Your task to perform on an android device: change the clock display to analog Image 0: 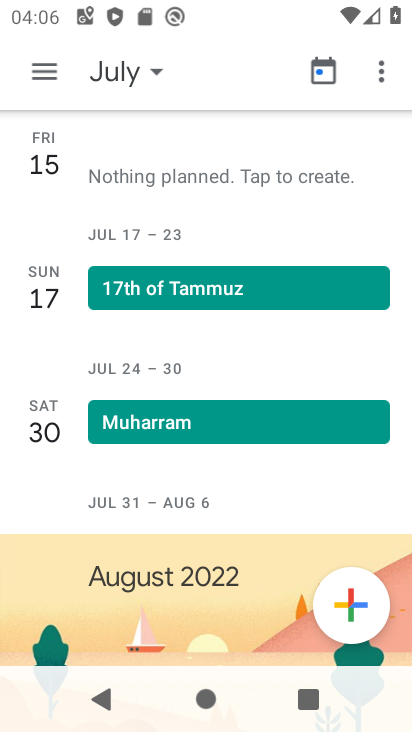
Step 0: press home button
Your task to perform on an android device: change the clock display to analog Image 1: 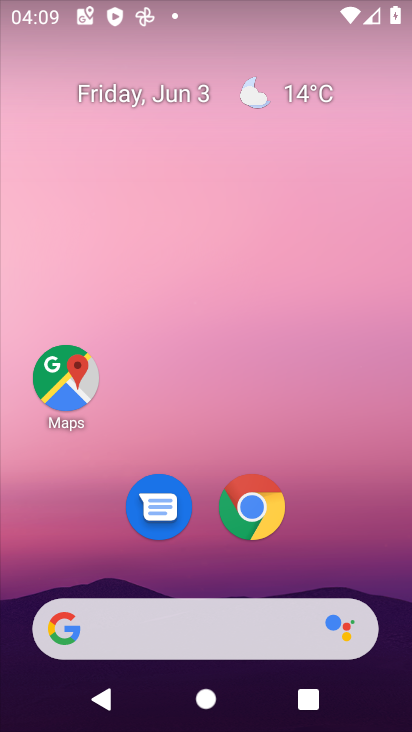
Step 1: drag from (221, 575) to (218, 171)
Your task to perform on an android device: change the clock display to analog Image 2: 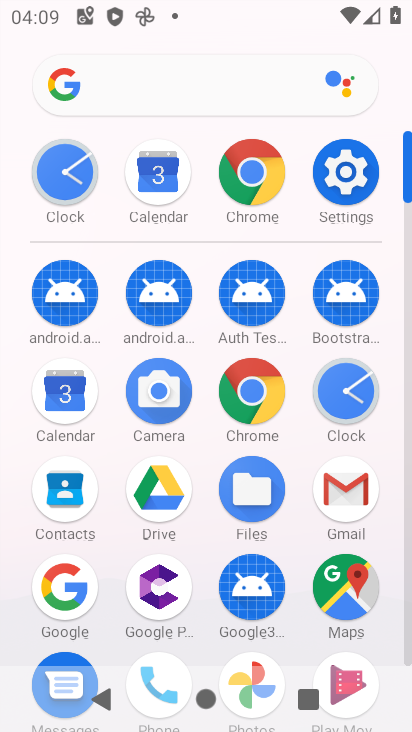
Step 2: click (344, 400)
Your task to perform on an android device: change the clock display to analog Image 3: 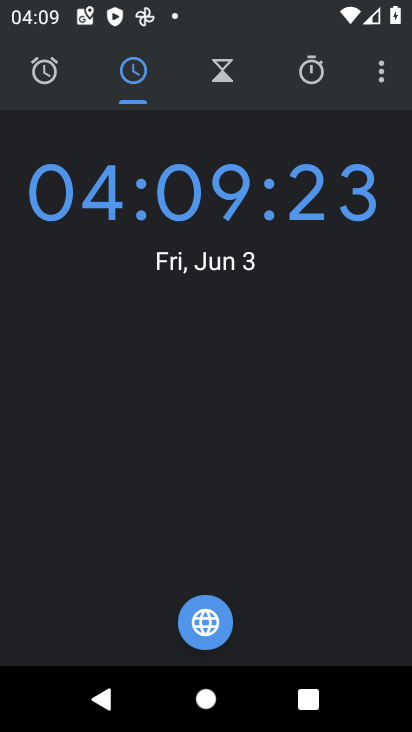
Step 3: click (379, 77)
Your task to perform on an android device: change the clock display to analog Image 4: 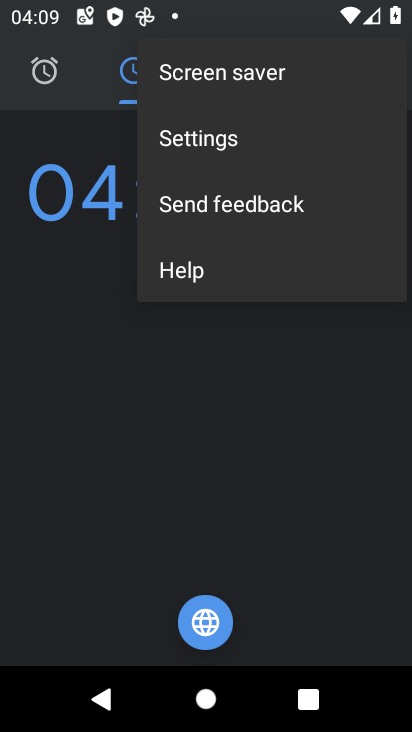
Step 4: click (208, 144)
Your task to perform on an android device: change the clock display to analog Image 5: 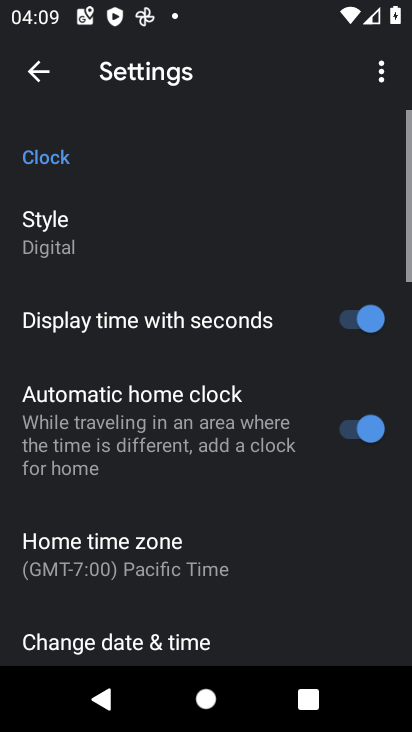
Step 5: click (40, 228)
Your task to perform on an android device: change the clock display to analog Image 6: 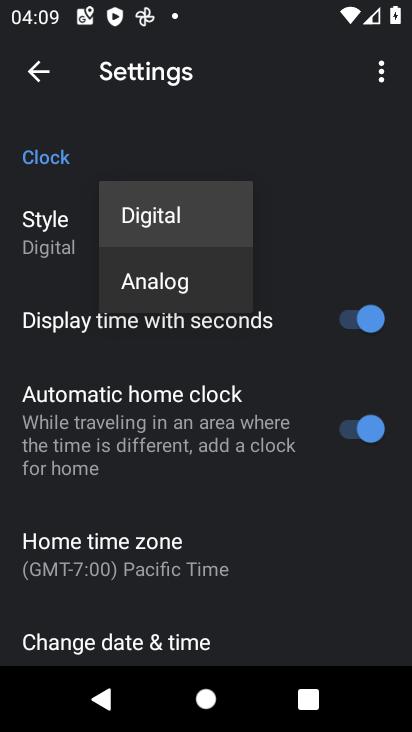
Step 6: click (131, 285)
Your task to perform on an android device: change the clock display to analog Image 7: 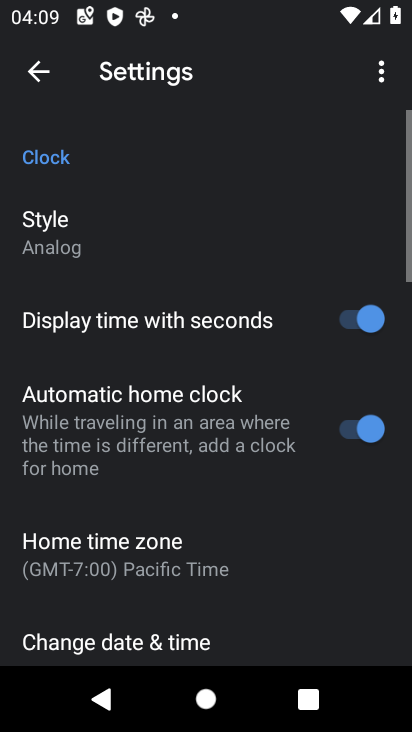
Step 7: task complete